Your task to perform on an android device: toggle sleep mode Image 0: 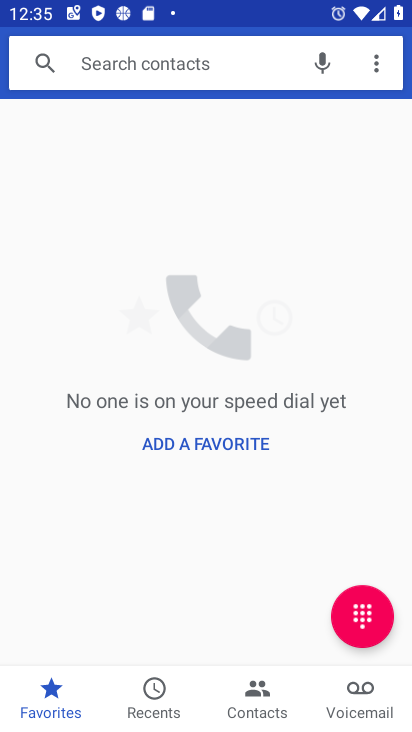
Step 0: press home button
Your task to perform on an android device: toggle sleep mode Image 1: 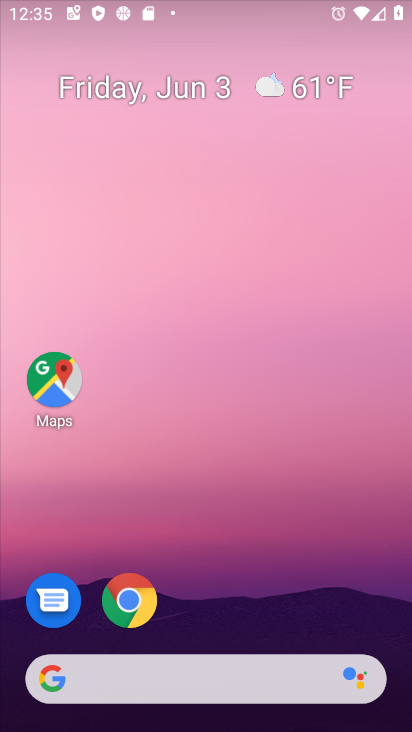
Step 1: drag from (298, 541) to (218, 134)
Your task to perform on an android device: toggle sleep mode Image 2: 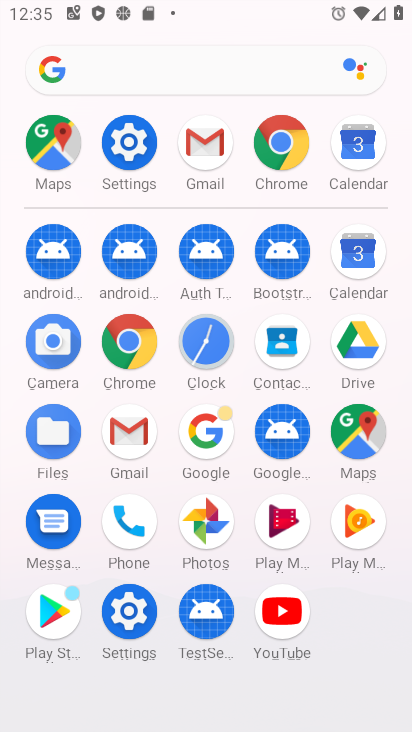
Step 2: click (123, 155)
Your task to perform on an android device: toggle sleep mode Image 3: 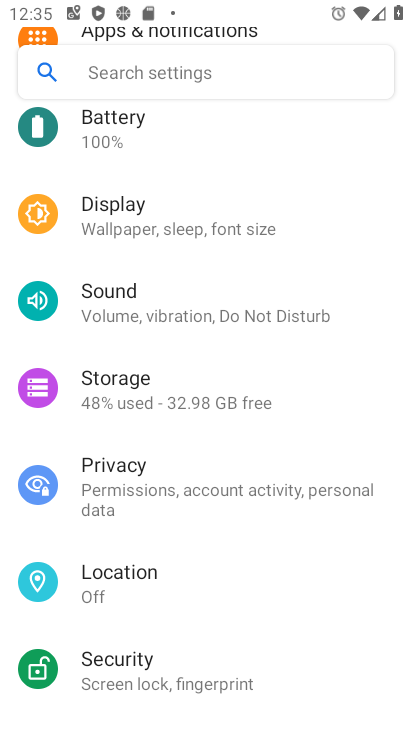
Step 3: click (159, 222)
Your task to perform on an android device: toggle sleep mode Image 4: 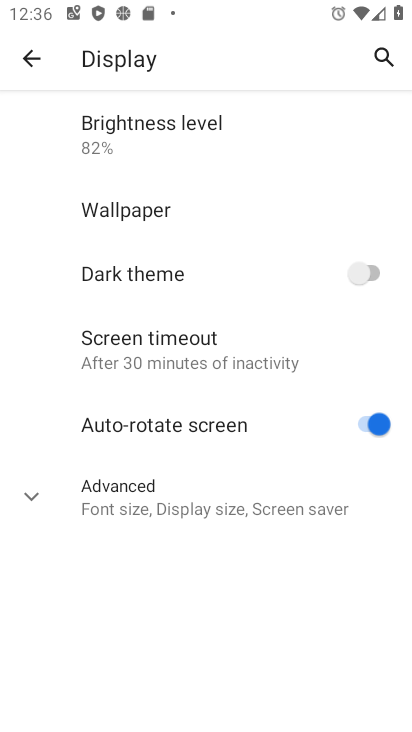
Step 4: click (188, 337)
Your task to perform on an android device: toggle sleep mode Image 5: 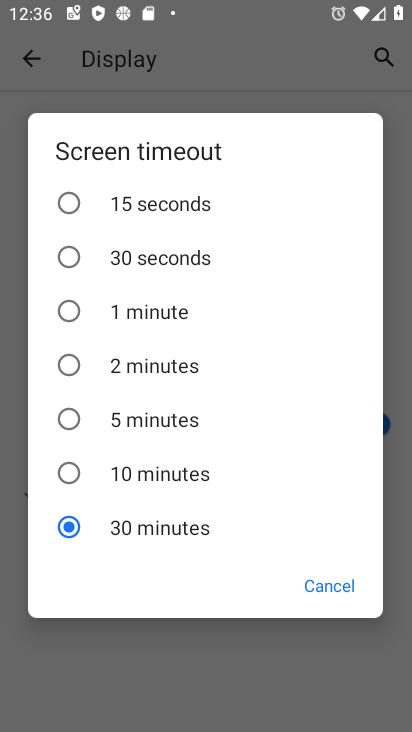
Step 5: click (170, 484)
Your task to perform on an android device: toggle sleep mode Image 6: 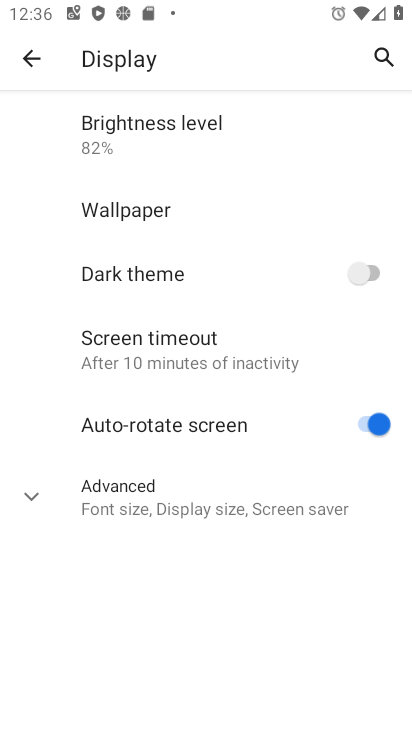
Step 6: task complete